Your task to perform on an android device: turn off data saver in the chrome app Image 0: 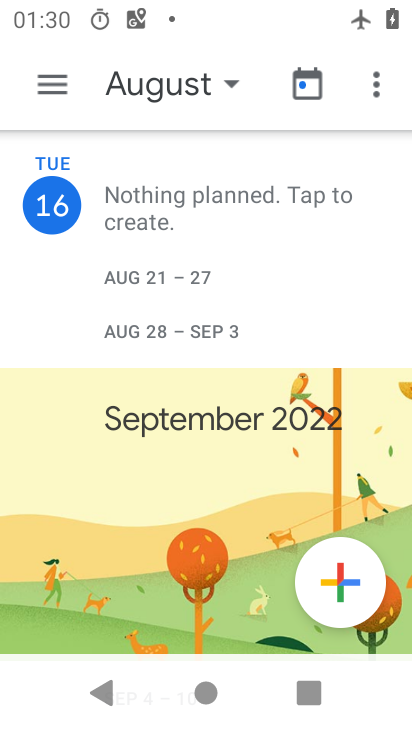
Step 0: press home button
Your task to perform on an android device: turn off data saver in the chrome app Image 1: 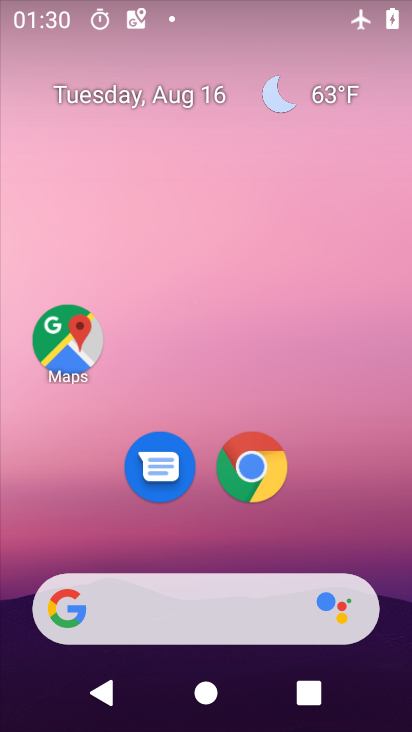
Step 1: drag from (382, 561) to (372, 154)
Your task to perform on an android device: turn off data saver in the chrome app Image 2: 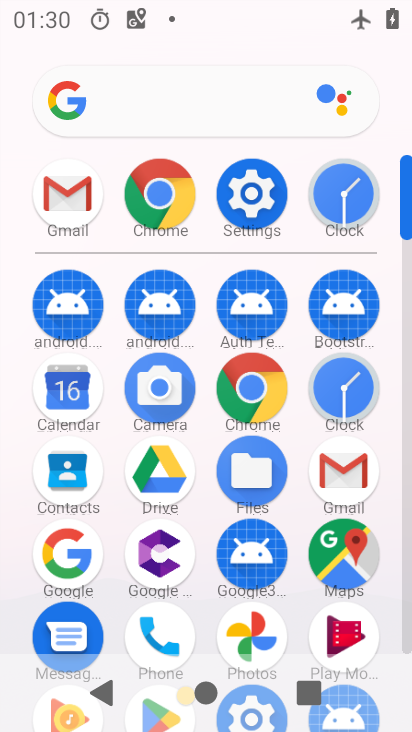
Step 2: click (240, 402)
Your task to perform on an android device: turn off data saver in the chrome app Image 3: 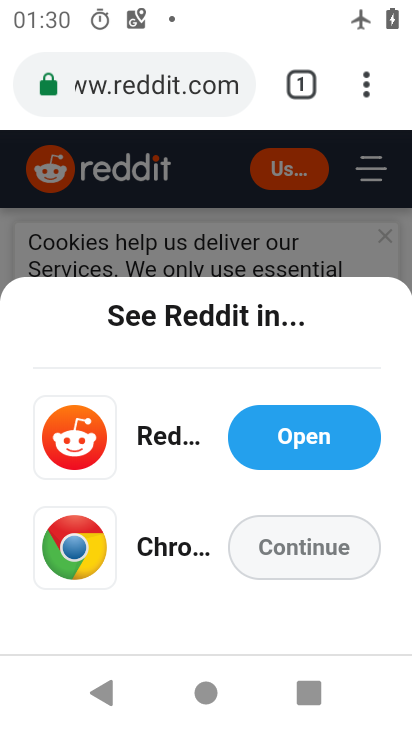
Step 3: click (276, 330)
Your task to perform on an android device: turn off data saver in the chrome app Image 4: 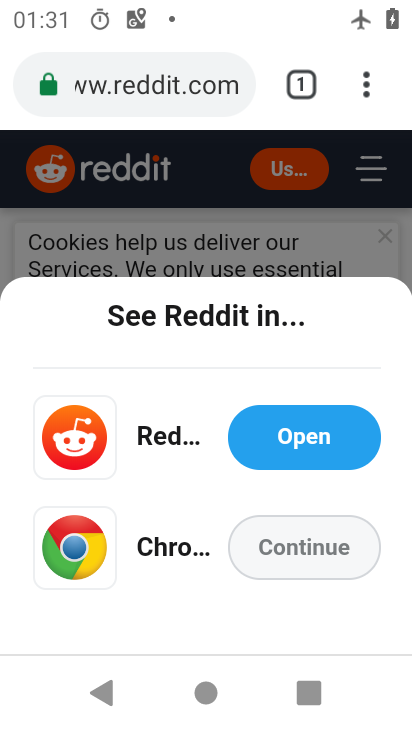
Step 4: click (369, 92)
Your task to perform on an android device: turn off data saver in the chrome app Image 5: 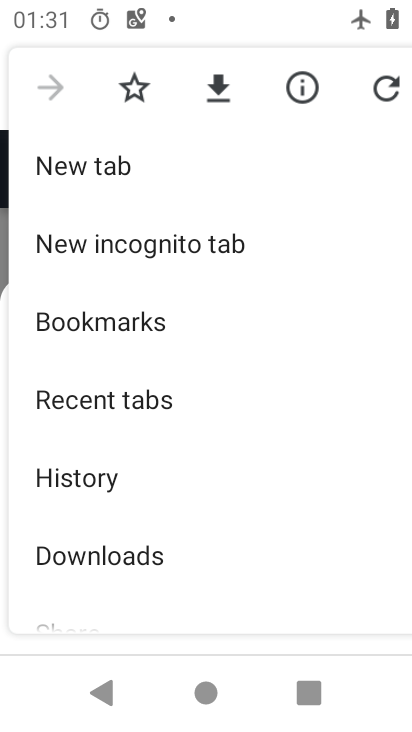
Step 5: drag from (299, 484) to (288, 389)
Your task to perform on an android device: turn off data saver in the chrome app Image 6: 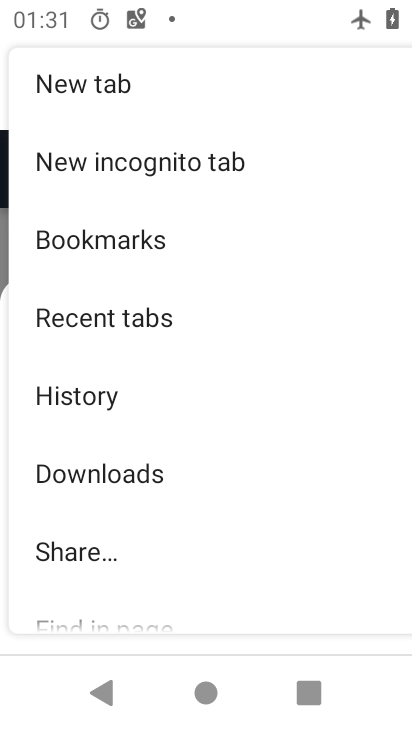
Step 6: drag from (303, 561) to (321, 422)
Your task to perform on an android device: turn off data saver in the chrome app Image 7: 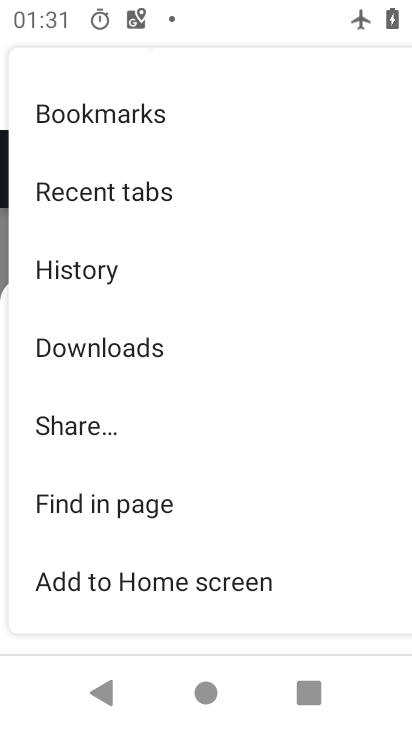
Step 7: drag from (307, 560) to (315, 408)
Your task to perform on an android device: turn off data saver in the chrome app Image 8: 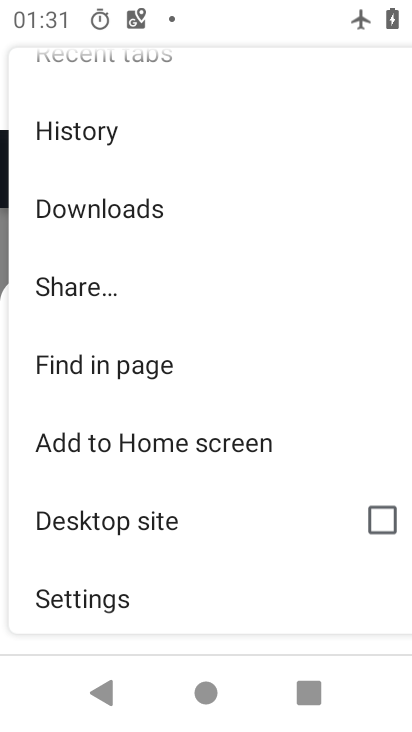
Step 8: drag from (294, 588) to (318, 411)
Your task to perform on an android device: turn off data saver in the chrome app Image 9: 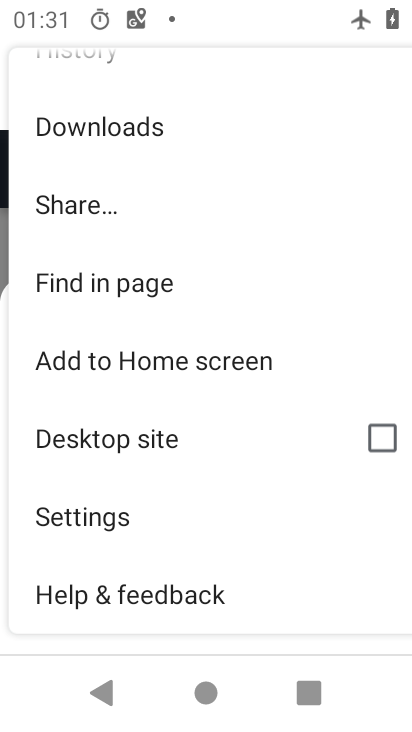
Step 9: click (161, 528)
Your task to perform on an android device: turn off data saver in the chrome app Image 10: 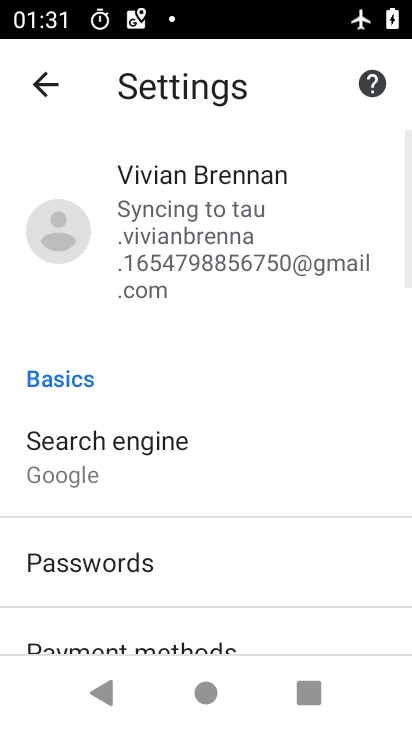
Step 10: drag from (272, 586) to (287, 499)
Your task to perform on an android device: turn off data saver in the chrome app Image 11: 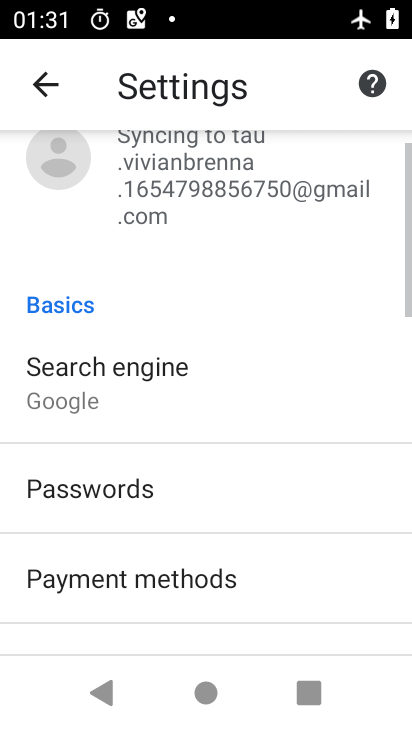
Step 11: drag from (327, 617) to (331, 499)
Your task to perform on an android device: turn off data saver in the chrome app Image 12: 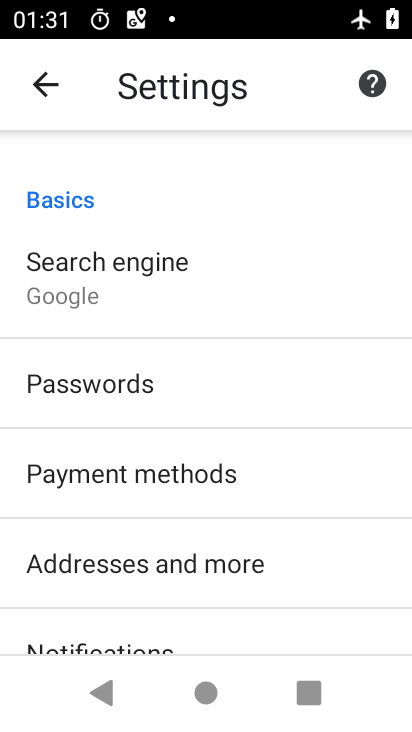
Step 12: drag from (317, 624) to (318, 531)
Your task to perform on an android device: turn off data saver in the chrome app Image 13: 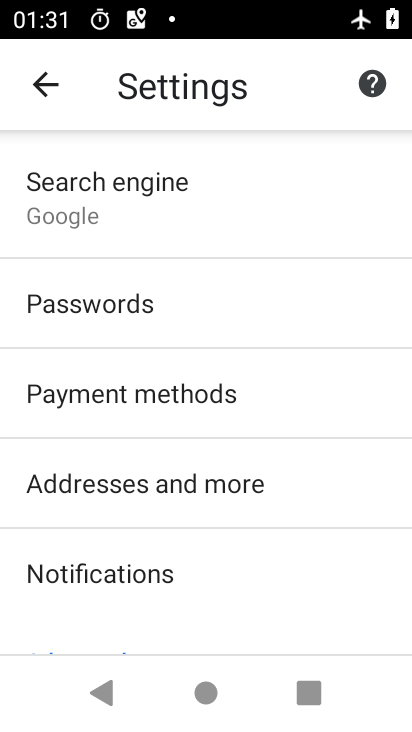
Step 13: drag from (310, 604) to (318, 504)
Your task to perform on an android device: turn off data saver in the chrome app Image 14: 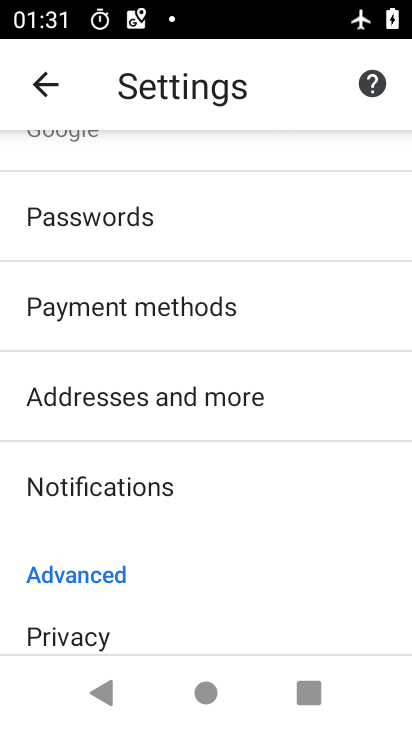
Step 14: drag from (323, 522) to (343, 383)
Your task to perform on an android device: turn off data saver in the chrome app Image 15: 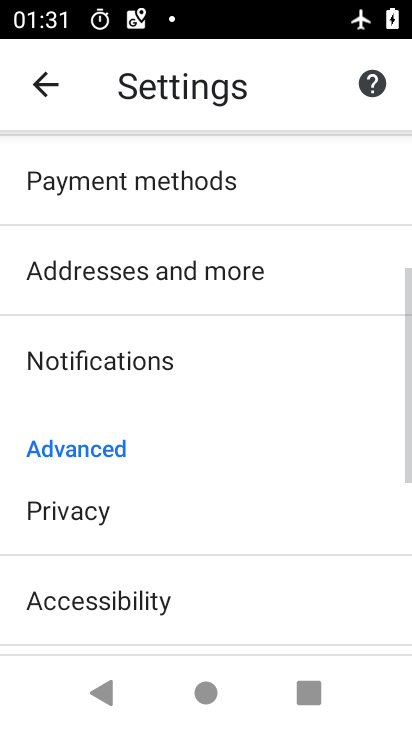
Step 15: drag from (307, 508) to (323, 407)
Your task to perform on an android device: turn off data saver in the chrome app Image 16: 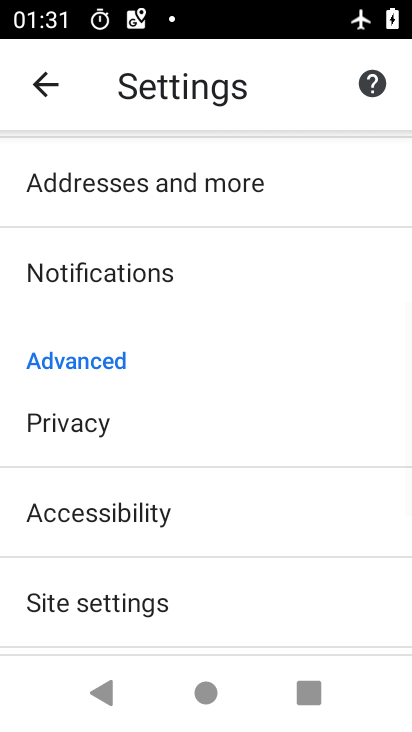
Step 16: drag from (272, 531) to (291, 376)
Your task to perform on an android device: turn off data saver in the chrome app Image 17: 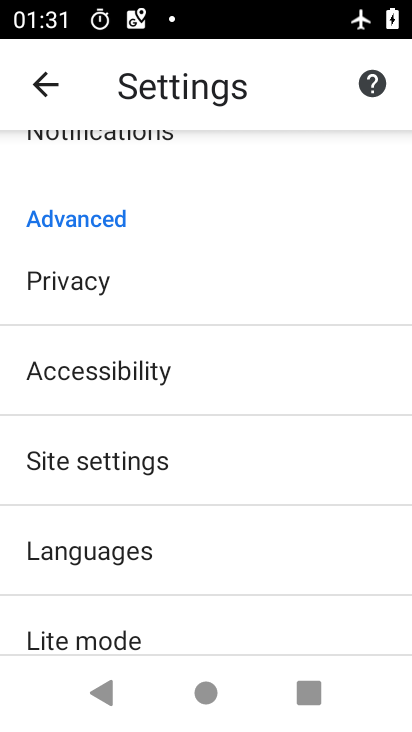
Step 17: drag from (291, 580) to (280, 442)
Your task to perform on an android device: turn off data saver in the chrome app Image 18: 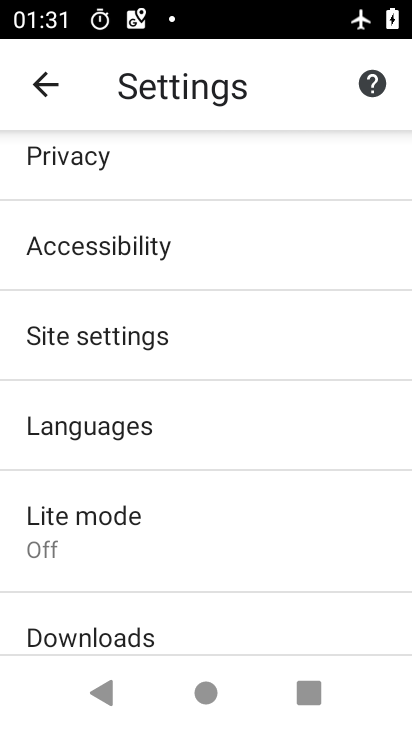
Step 18: click (265, 548)
Your task to perform on an android device: turn off data saver in the chrome app Image 19: 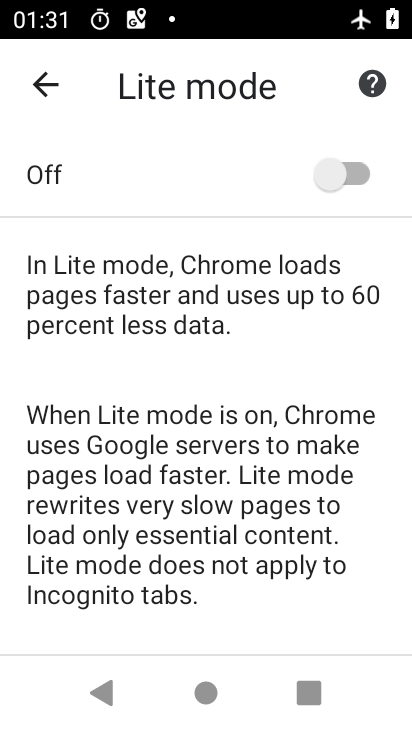
Step 19: click (341, 184)
Your task to perform on an android device: turn off data saver in the chrome app Image 20: 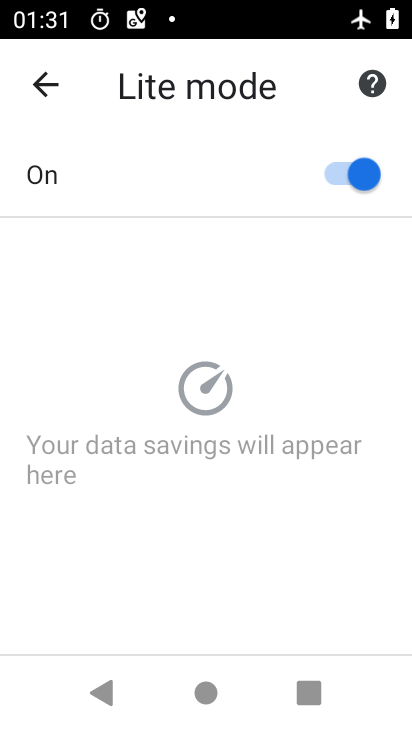
Step 20: task complete